Your task to perform on an android device: see sites visited before in the chrome app Image 0: 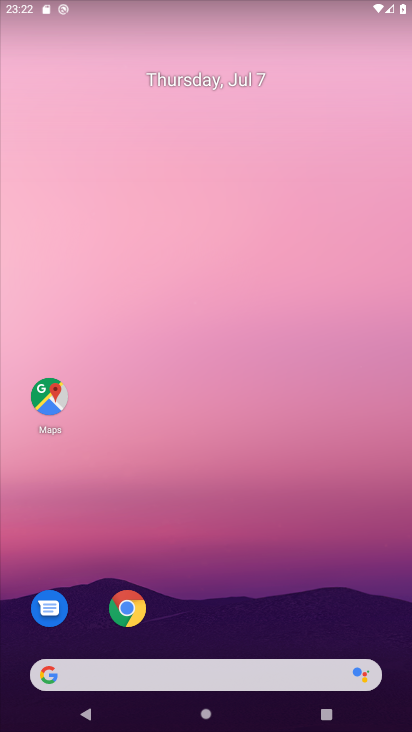
Step 0: drag from (242, 545) to (238, 137)
Your task to perform on an android device: see sites visited before in the chrome app Image 1: 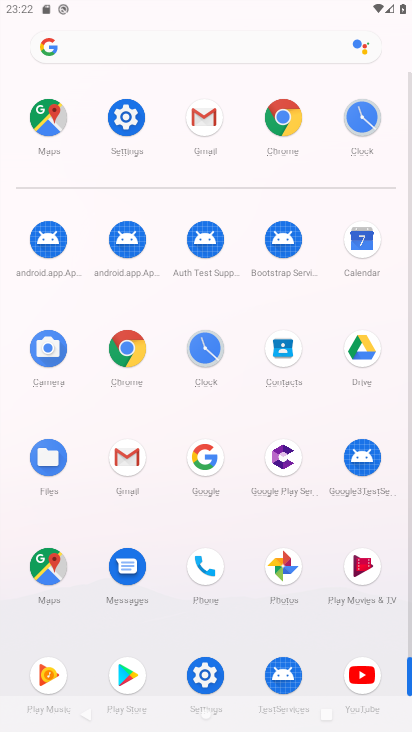
Step 1: click (282, 135)
Your task to perform on an android device: see sites visited before in the chrome app Image 2: 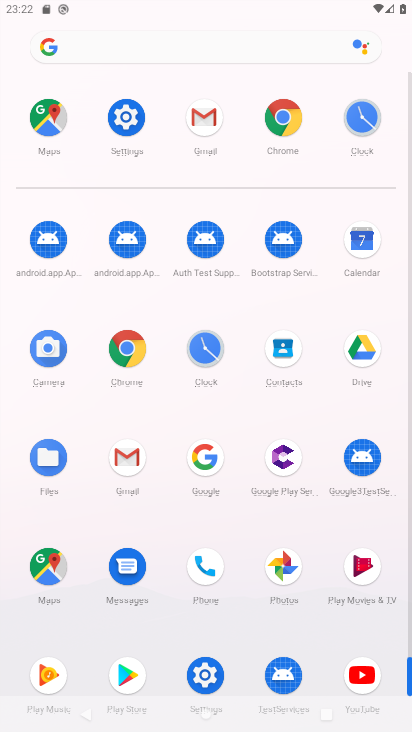
Step 2: click (279, 126)
Your task to perform on an android device: see sites visited before in the chrome app Image 3: 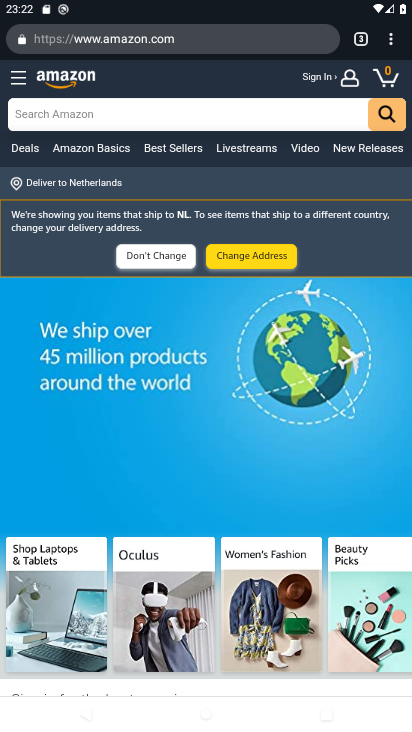
Step 3: click (394, 46)
Your task to perform on an android device: see sites visited before in the chrome app Image 4: 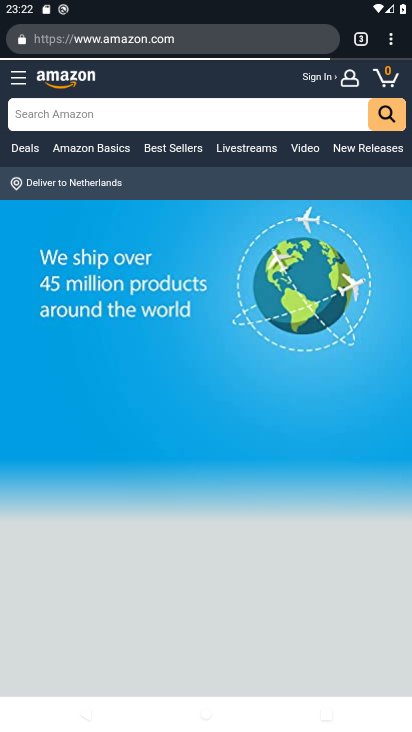
Step 4: click (394, 40)
Your task to perform on an android device: see sites visited before in the chrome app Image 5: 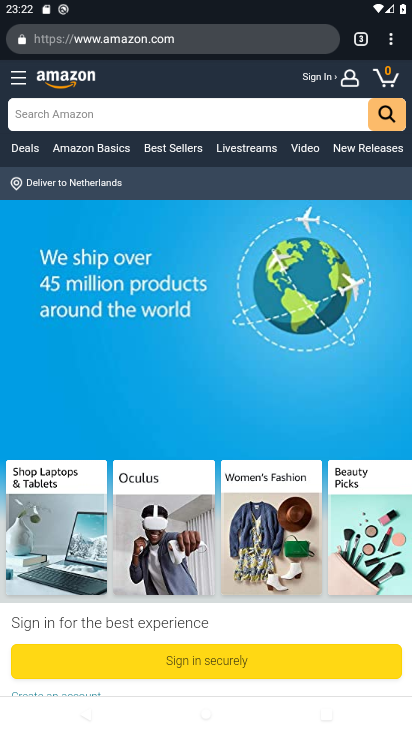
Step 5: click (394, 40)
Your task to perform on an android device: see sites visited before in the chrome app Image 6: 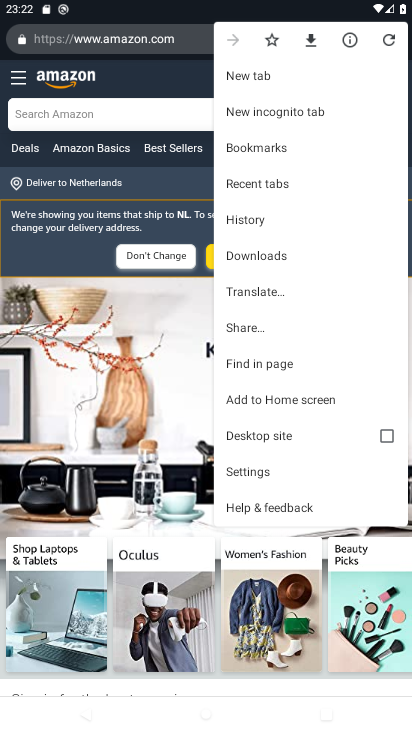
Step 6: click (265, 214)
Your task to perform on an android device: see sites visited before in the chrome app Image 7: 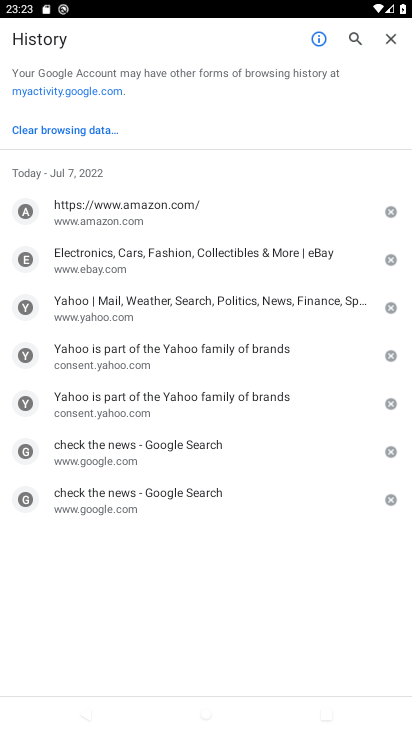
Step 7: task complete